Your task to perform on an android device: Open calendar and show me the fourth week of next month Image 0: 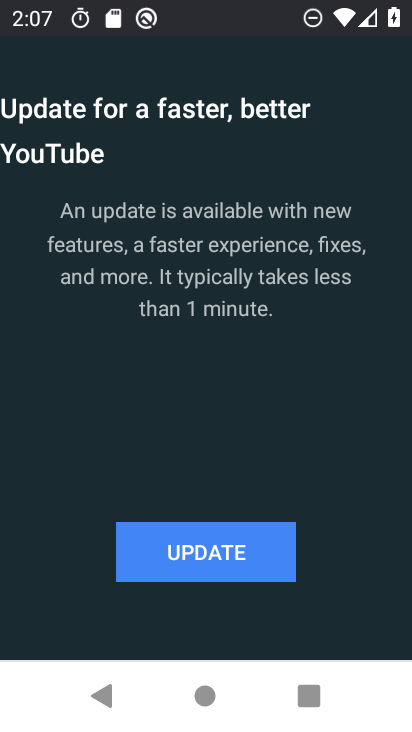
Step 0: press back button
Your task to perform on an android device: Open calendar and show me the fourth week of next month Image 1: 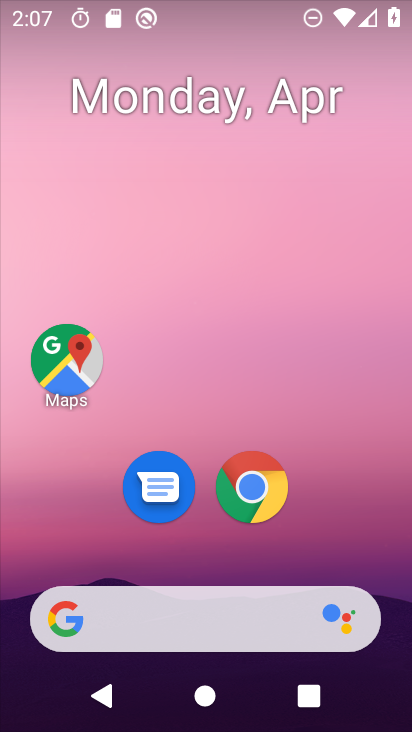
Step 1: drag from (314, 634) to (208, 223)
Your task to perform on an android device: Open calendar and show me the fourth week of next month Image 2: 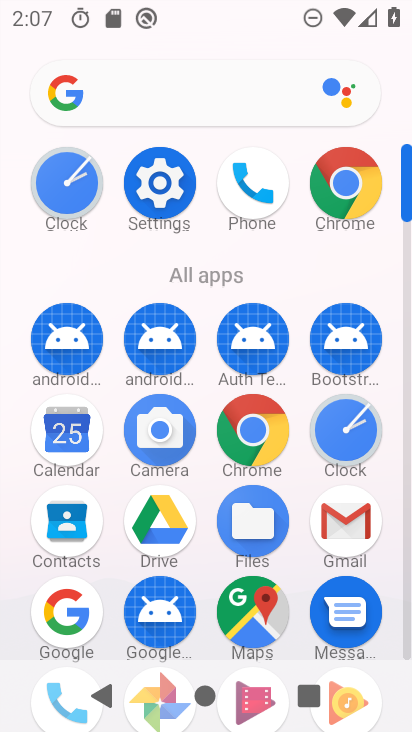
Step 2: click (70, 426)
Your task to perform on an android device: Open calendar and show me the fourth week of next month Image 3: 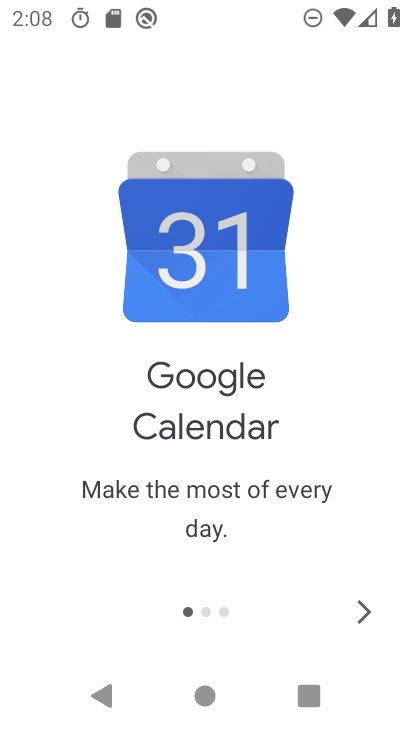
Step 3: click (369, 612)
Your task to perform on an android device: Open calendar and show me the fourth week of next month Image 4: 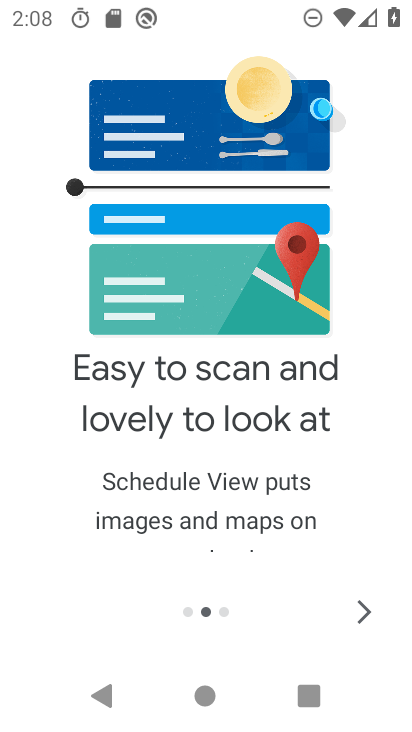
Step 4: click (365, 610)
Your task to perform on an android device: Open calendar and show me the fourth week of next month Image 5: 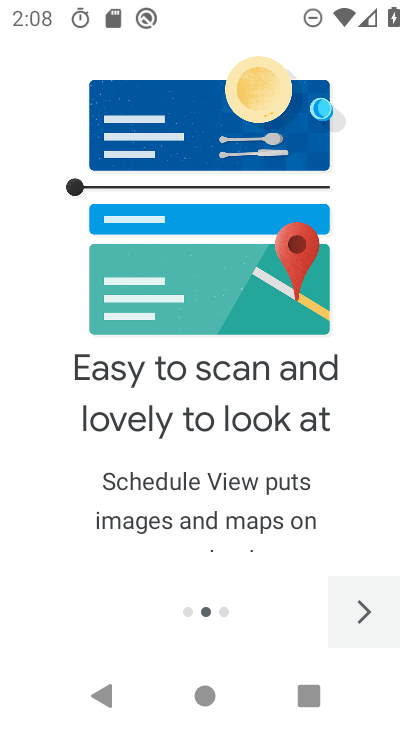
Step 5: click (370, 605)
Your task to perform on an android device: Open calendar and show me the fourth week of next month Image 6: 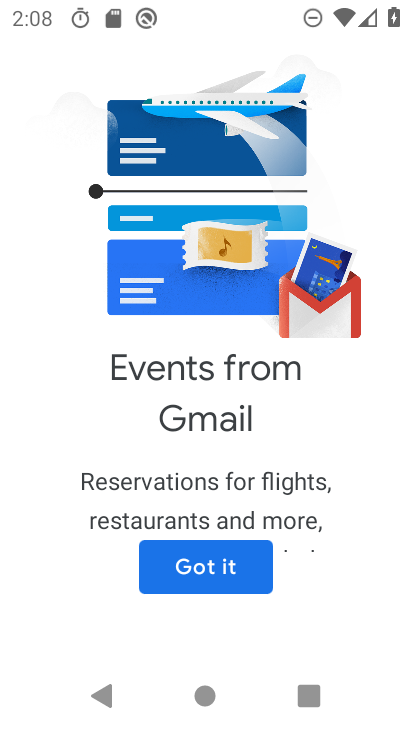
Step 6: click (185, 560)
Your task to perform on an android device: Open calendar and show me the fourth week of next month Image 7: 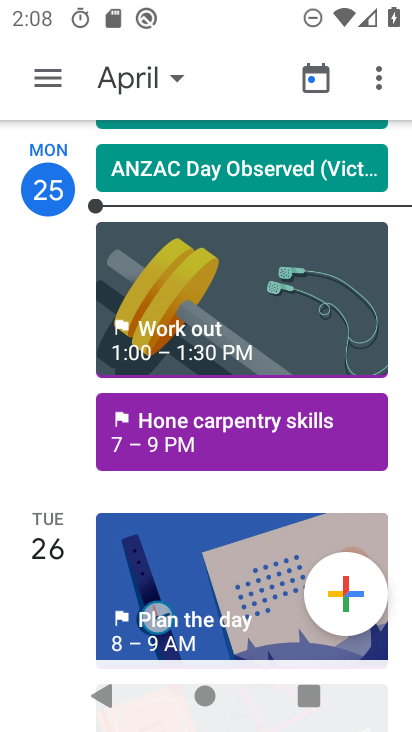
Step 7: click (53, 83)
Your task to perform on an android device: Open calendar and show me the fourth week of next month Image 8: 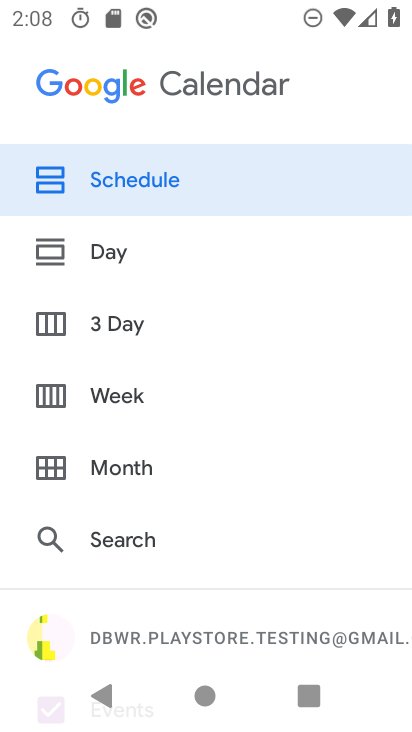
Step 8: click (103, 475)
Your task to perform on an android device: Open calendar and show me the fourth week of next month Image 9: 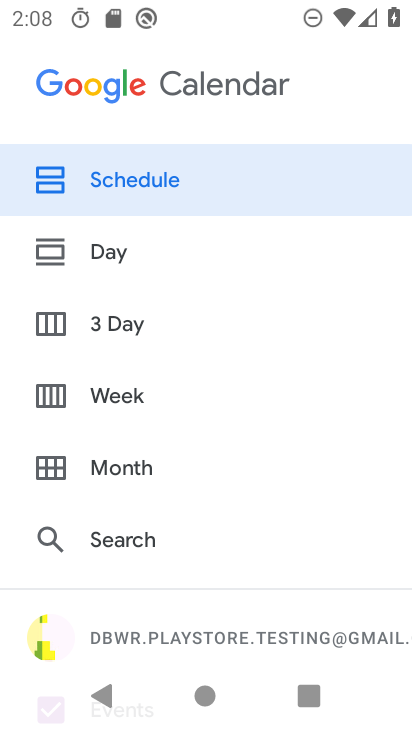
Step 9: click (105, 468)
Your task to perform on an android device: Open calendar and show me the fourth week of next month Image 10: 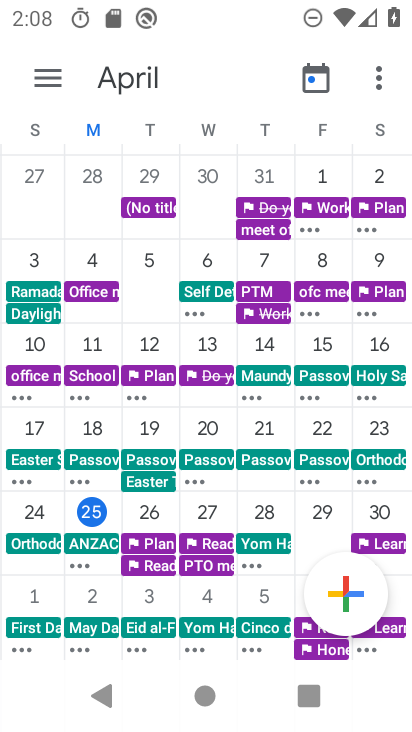
Step 10: drag from (389, 420) to (1, 556)
Your task to perform on an android device: Open calendar and show me the fourth week of next month Image 11: 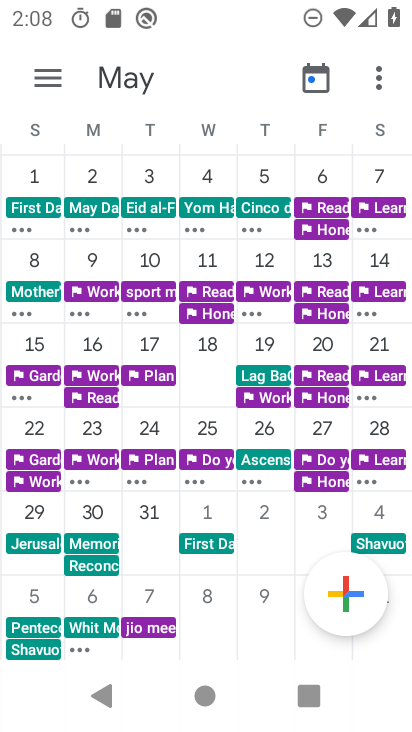
Step 11: click (91, 425)
Your task to perform on an android device: Open calendar and show me the fourth week of next month Image 12: 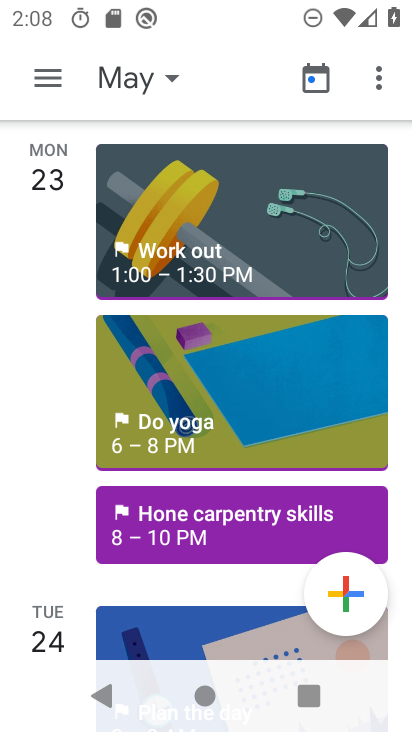
Step 12: task complete